Your task to perform on an android device: turn on showing notifications on the lock screen Image 0: 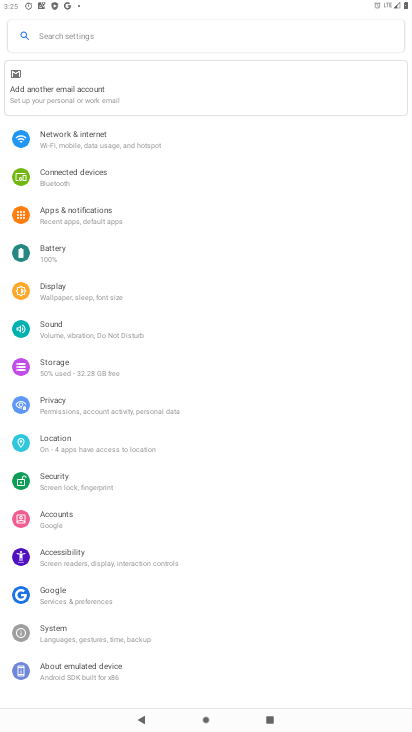
Step 0: click (94, 211)
Your task to perform on an android device: turn on showing notifications on the lock screen Image 1: 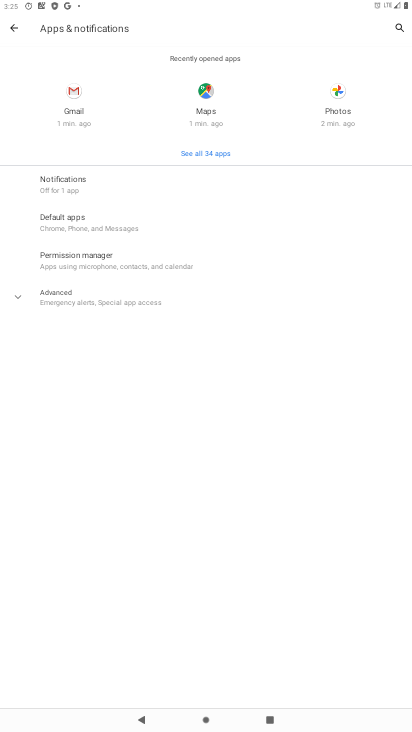
Step 1: click (82, 176)
Your task to perform on an android device: turn on showing notifications on the lock screen Image 2: 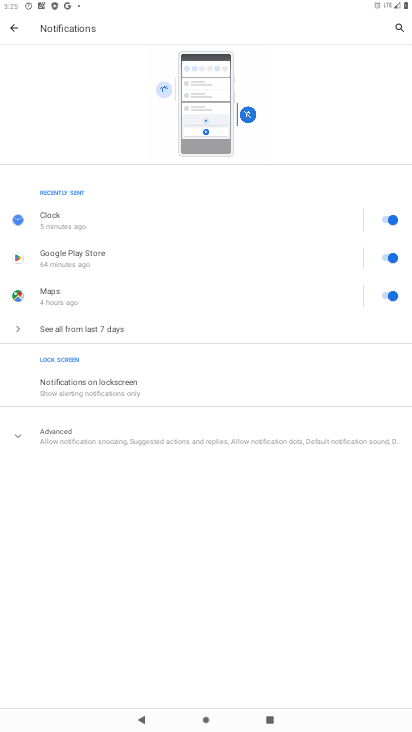
Step 2: click (86, 432)
Your task to perform on an android device: turn on showing notifications on the lock screen Image 3: 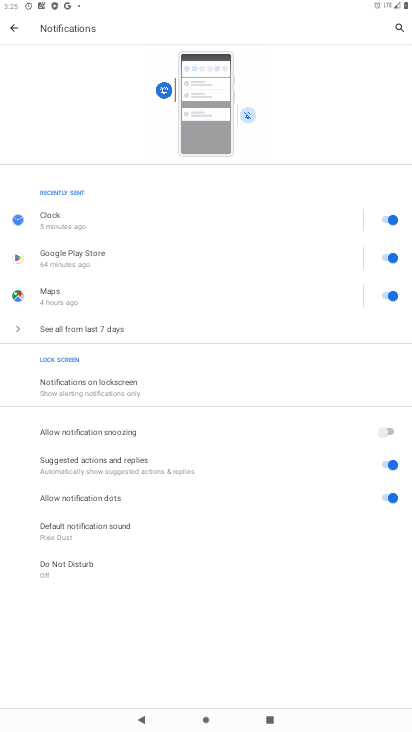
Step 3: click (108, 378)
Your task to perform on an android device: turn on showing notifications on the lock screen Image 4: 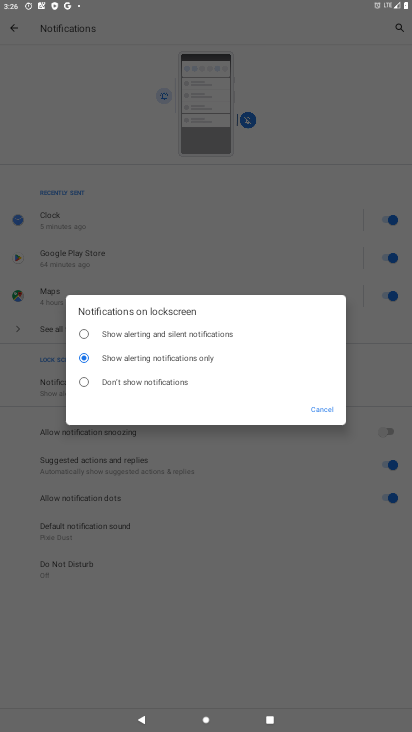
Step 4: task complete